Your task to perform on an android device: turn off location Image 0: 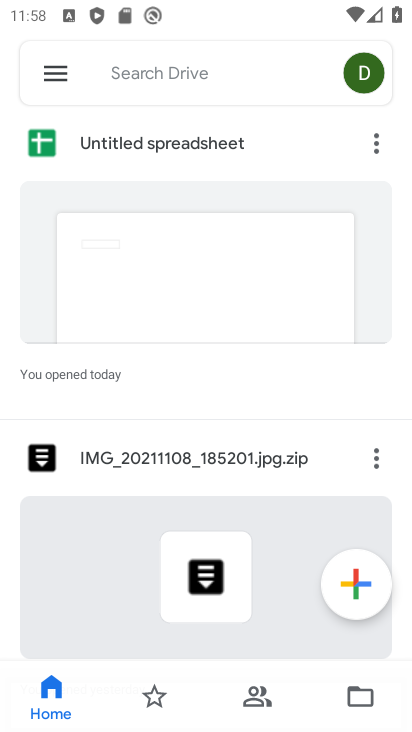
Step 0: press home button
Your task to perform on an android device: turn off location Image 1: 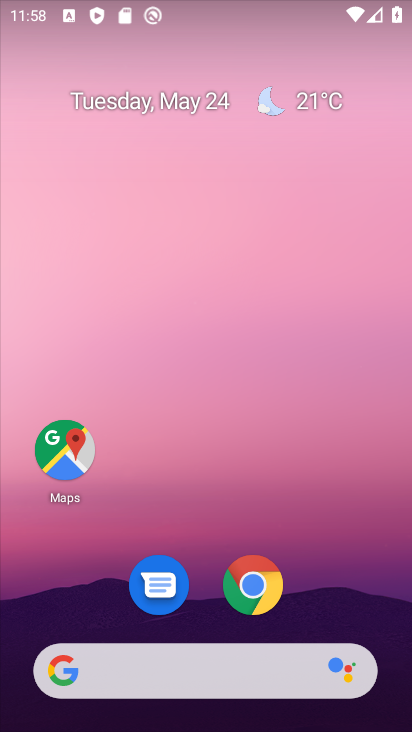
Step 1: drag from (224, 424) to (283, 36)
Your task to perform on an android device: turn off location Image 2: 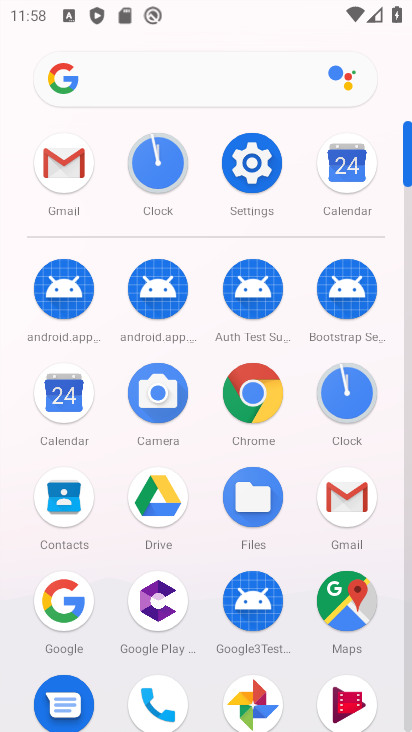
Step 2: click (259, 159)
Your task to perform on an android device: turn off location Image 3: 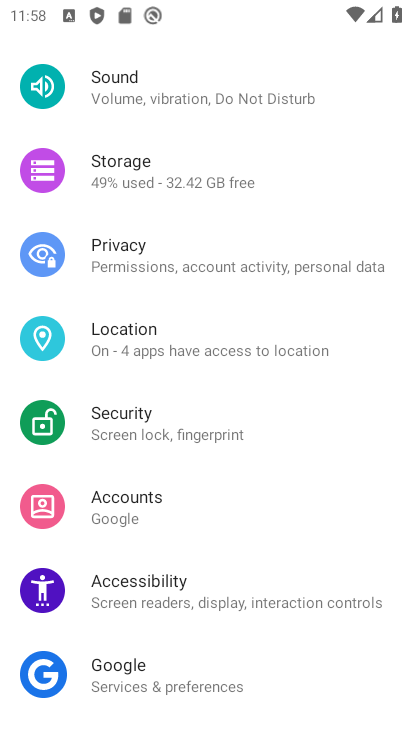
Step 3: click (208, 327)
Your task to perform on an android device: turn off location Image 4: 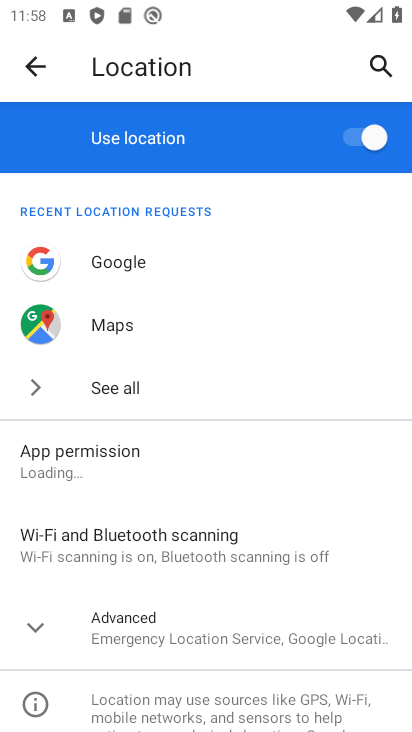
Step 4: click (361, 134)
Your task to perform on an android device: turn off location Image 5: 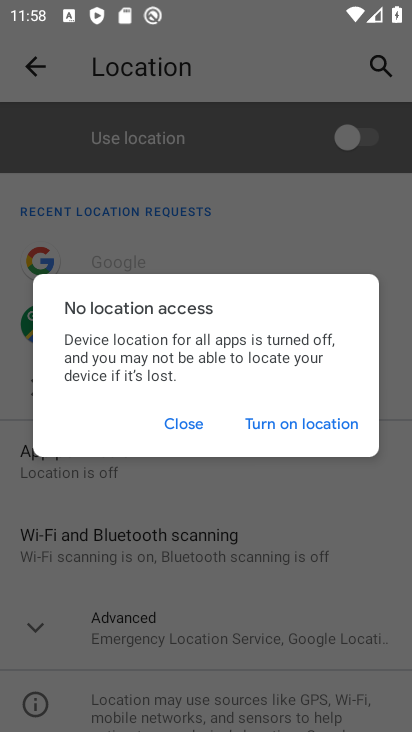
Step 5: task complete